Your task to perform on an android device: Do I have any events today? Image 0: 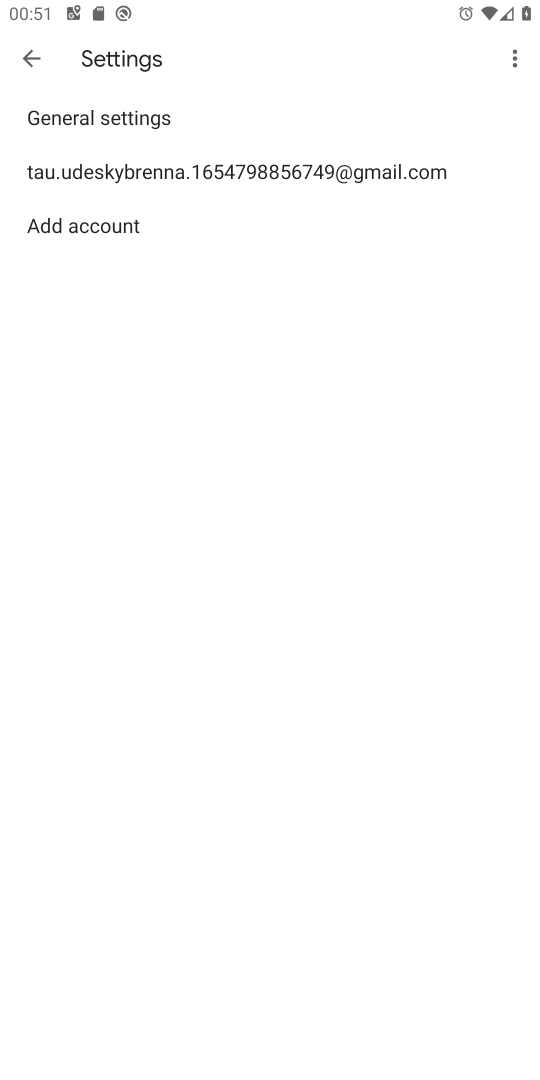
Step 0: press home button
Your task to perform on an android device: Do I have any events today? Image 1: 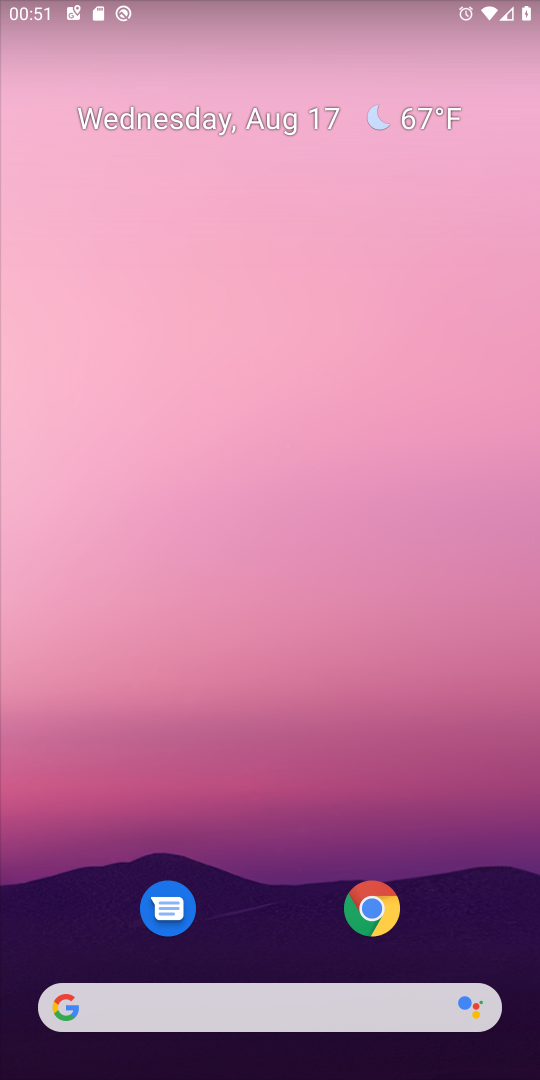
Step 1: drag from (286, 910) to (286, 213)
Your task to perform on an android device: Do I have any events today? Image 2: 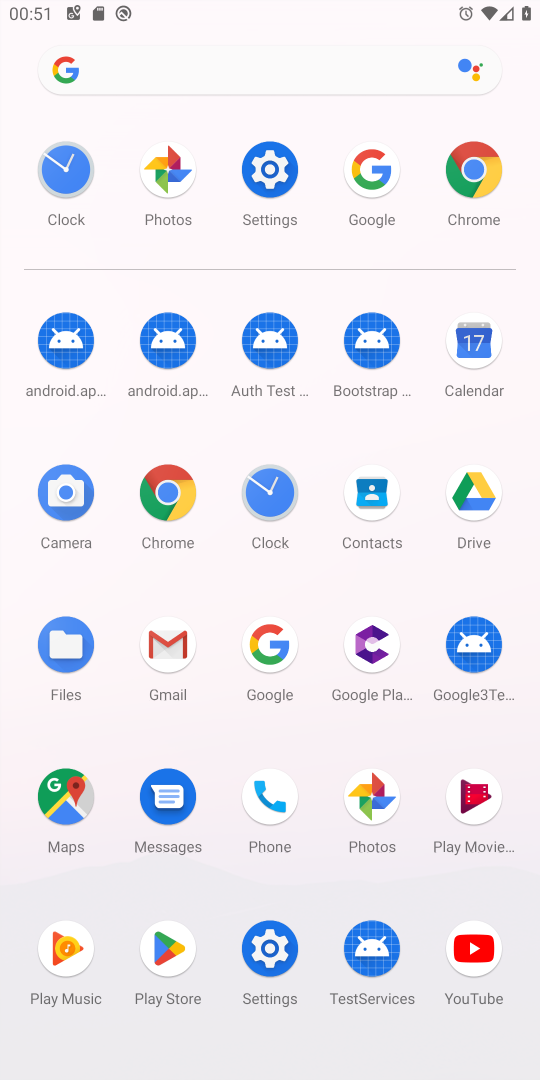
Step 2: click (474, 345)
Your task to perform on an android device: Do I have any events today? Image 3: 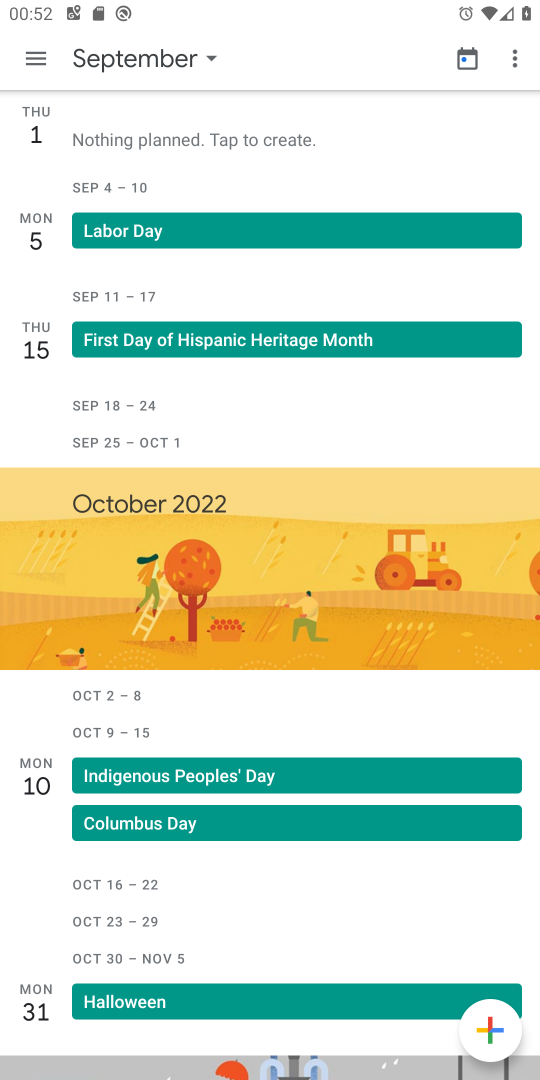
Step 3: click (184, 68)
Your task to perform on an android device: Do I have any events today? Image 4: 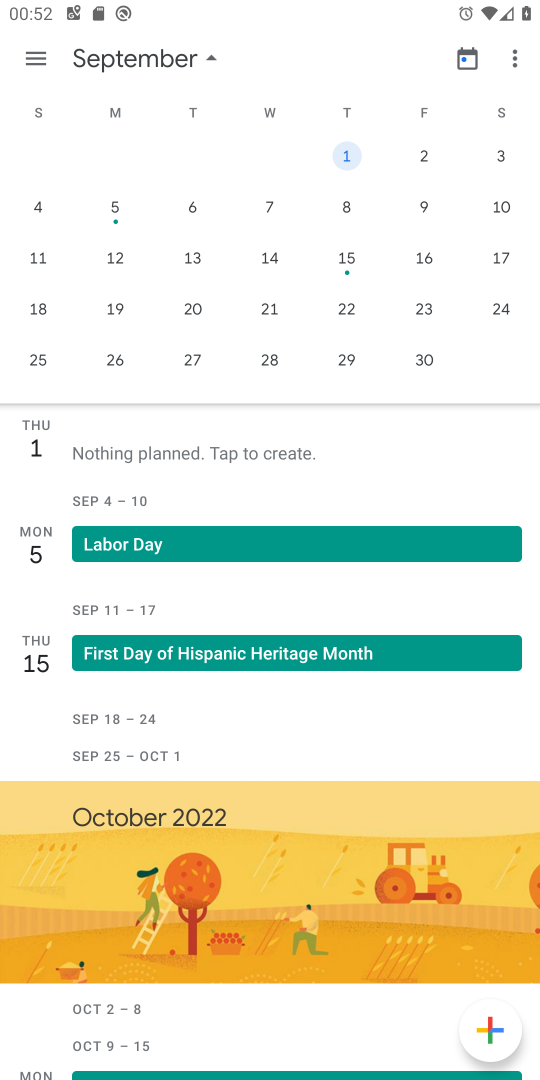
Step 4: drag from (124, 238) to (486, 240)
Your task to perform on an android device: Do I have any events today? Image 5: 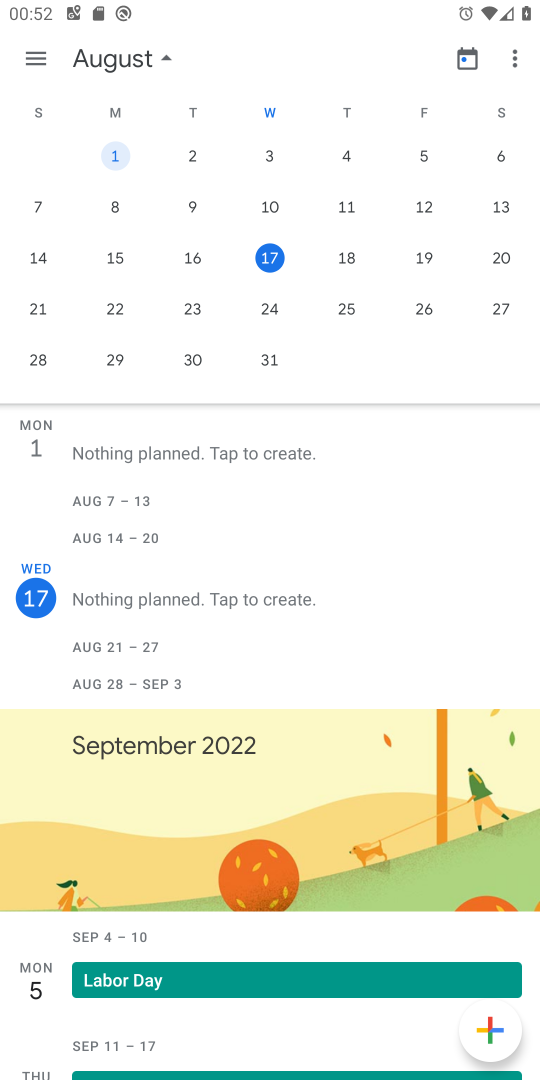
Step 5: click (275, 249)
Your task to perform on an android device: Do I have any events today? Image 6: 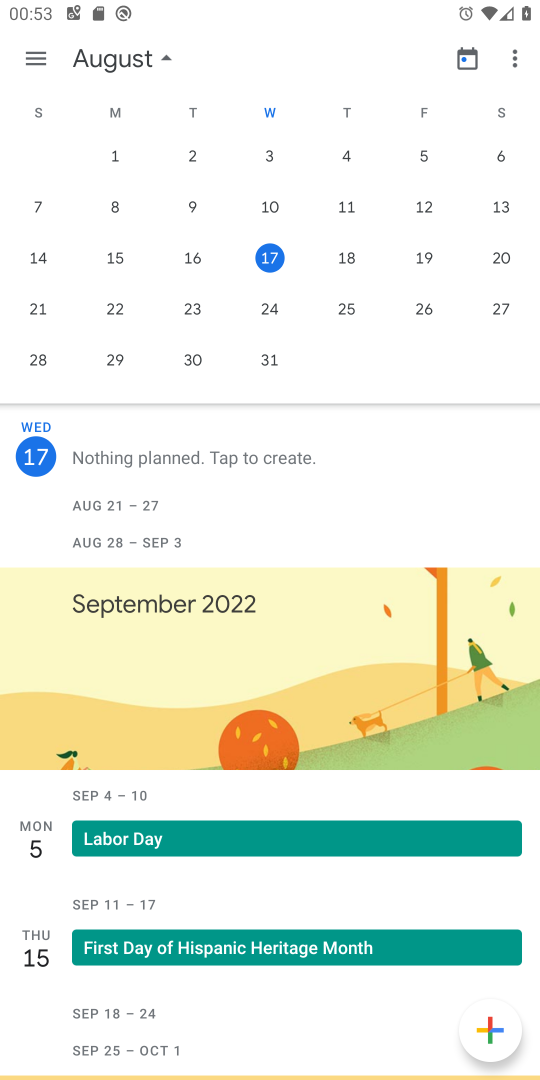
Step 6: task complete